Your task to perform on an android device: Go to Wikipedia Image 0: 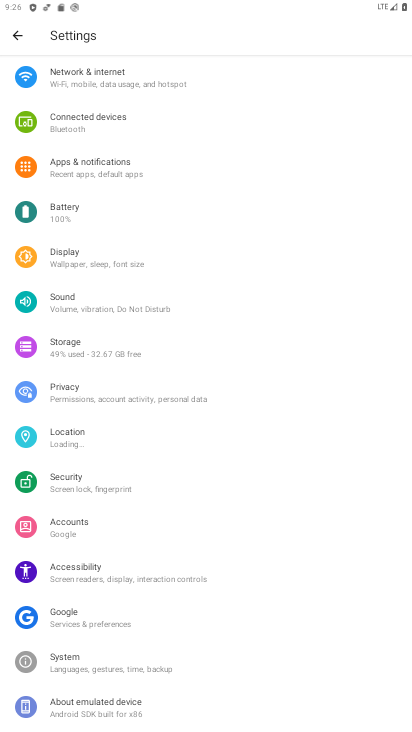
Step 0: press home button
Your task to perform on an android device: Go to Wikipedia Image 1: 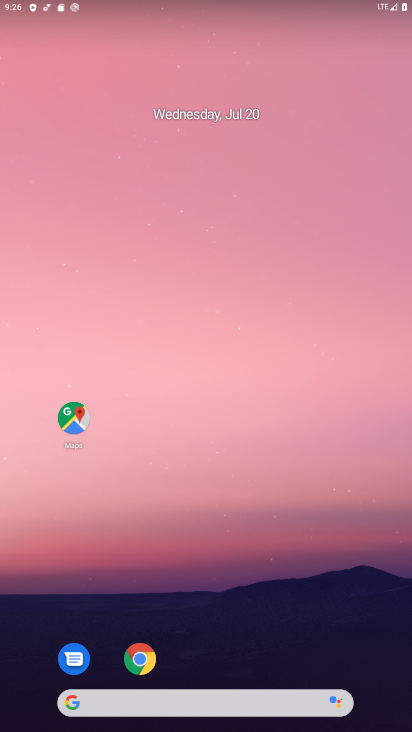
Step 1: click (140, 657)
Your task to perform on an android device: Go to Wikipedia Image 2: 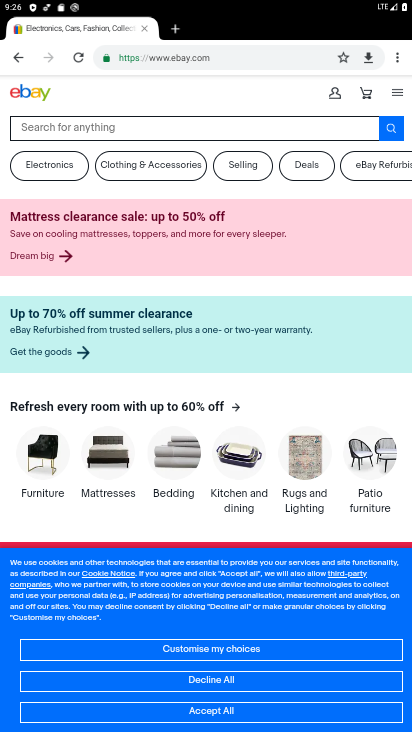
Step 2: click (397, 58)
Your task to perform on an android device: Go to Wikipedia Image 3: 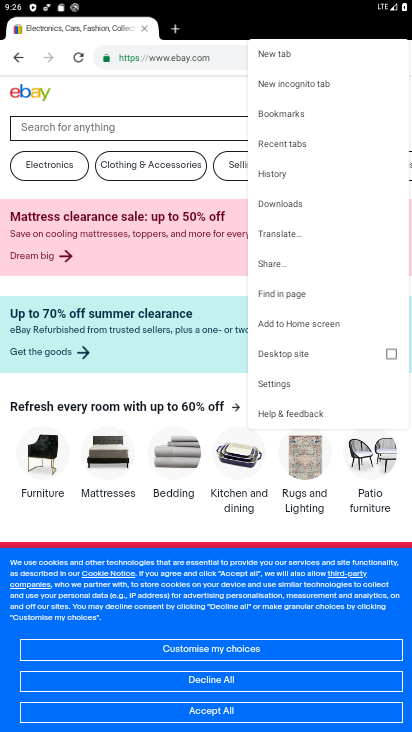
Step 3: click (275, 54)
Your task to perform on an android device: Go to Wikipedia Image 4: 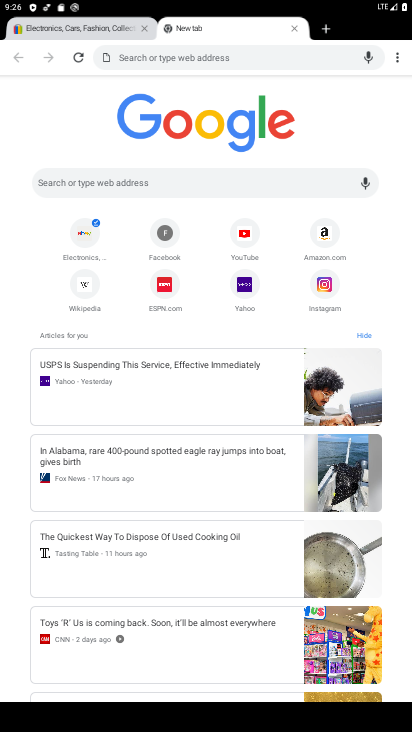
Step 4: click (85, 281)
Your task to perform on an android device: Go to Wikipedia Image 5: 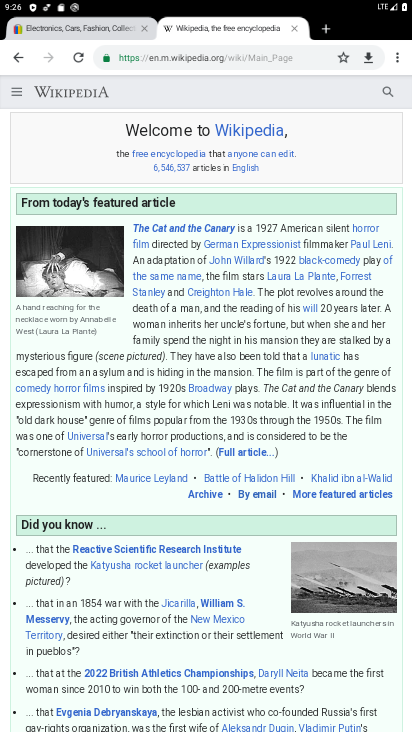
Step 5: task complete